Your task to perform on an android device: open a bookmark in the chrome app Image 0: 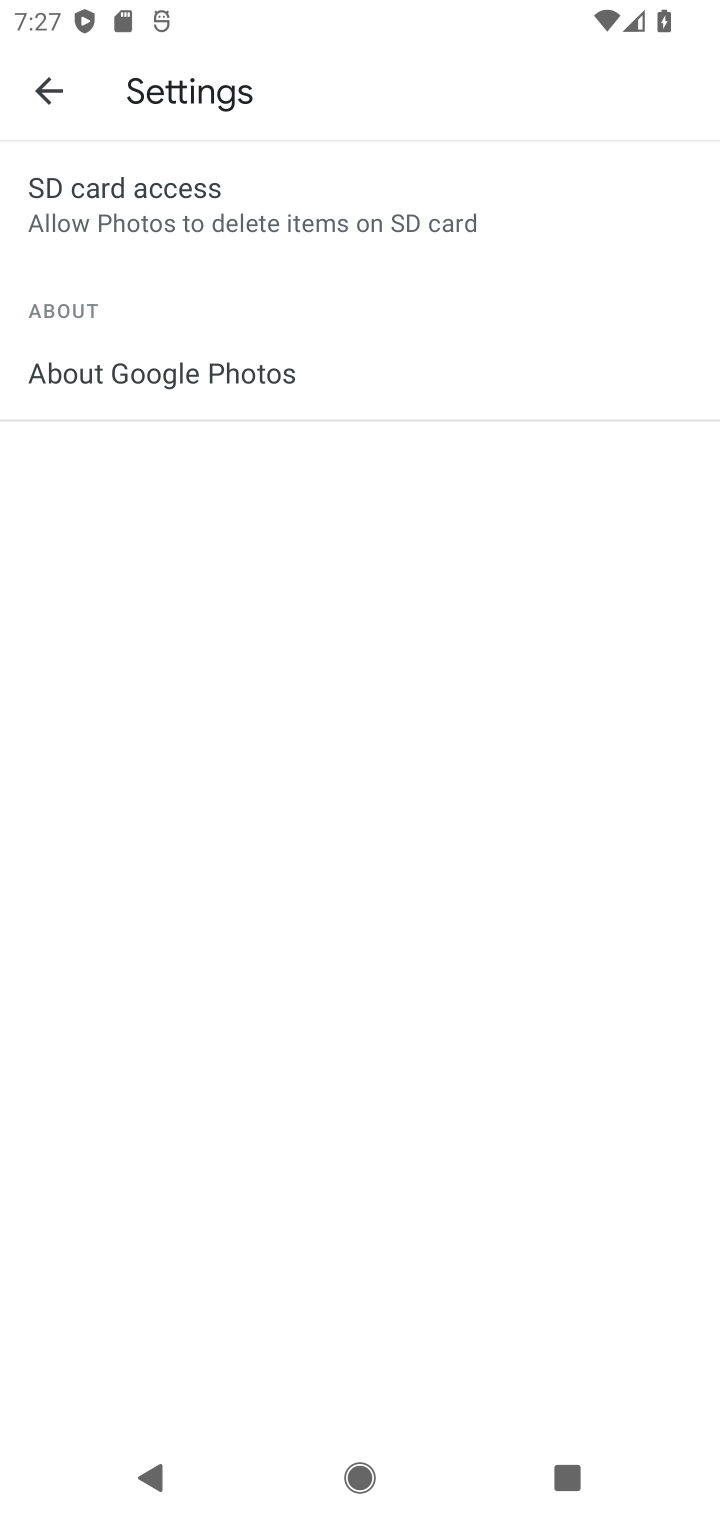
Step 0: click (28, 89)
Your task to perform on an android device: open a bookmark in the chrome app Image 1: 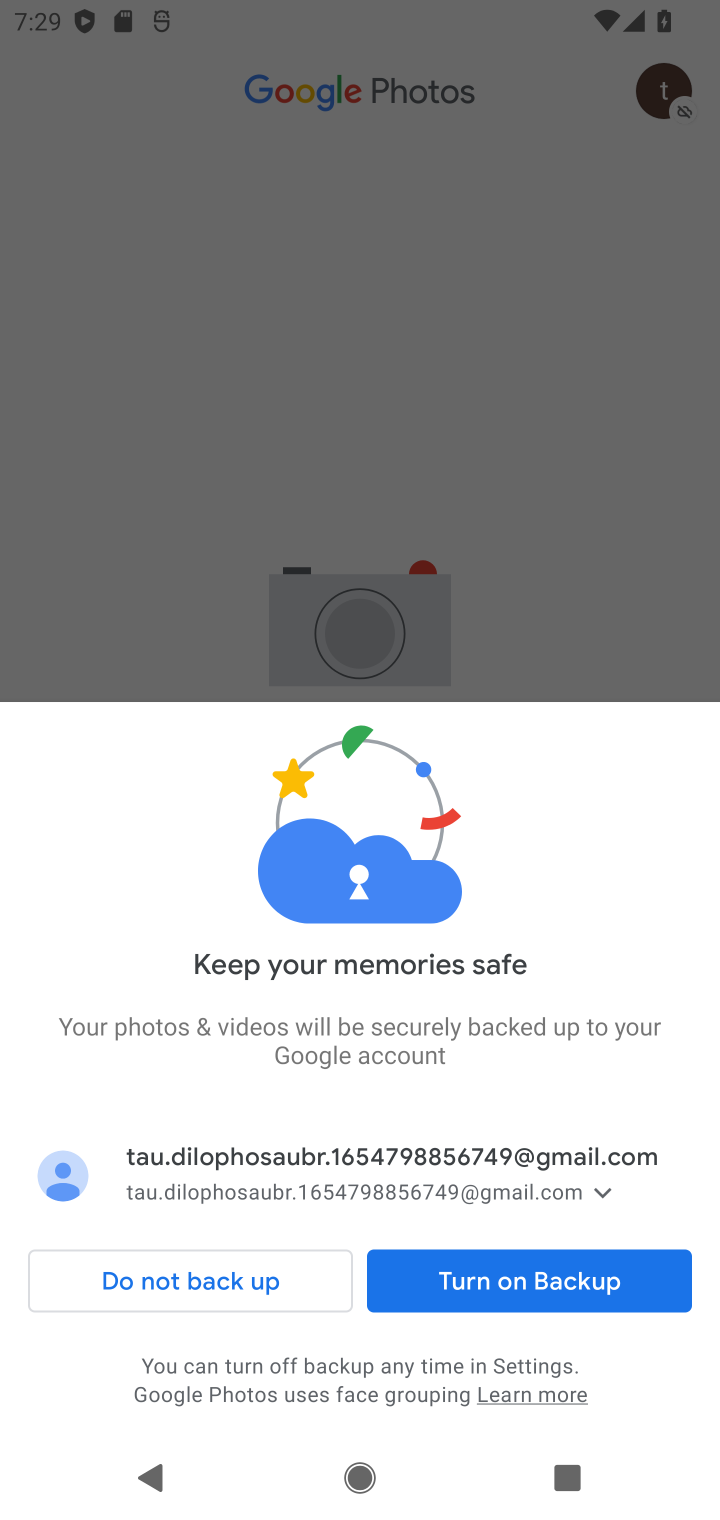
Step 1: task complete